Your task to perform on an android device: Show me the alarms in the clock app Image 0: 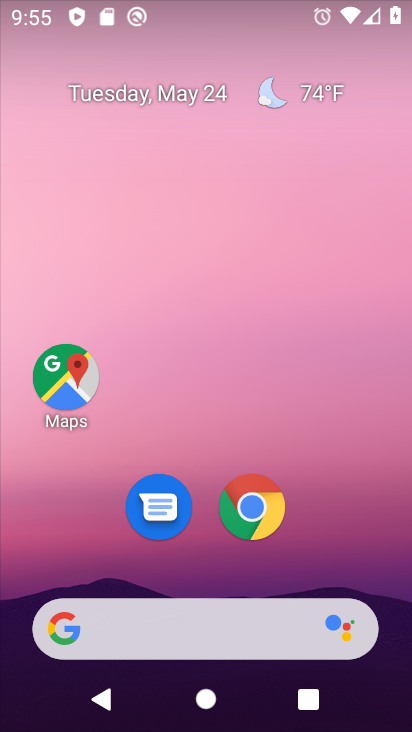
Step 0: drag from (215, 660) to (186, 154)
Your task to perform on an android device: Show me the alarms in the clock app Image 1: 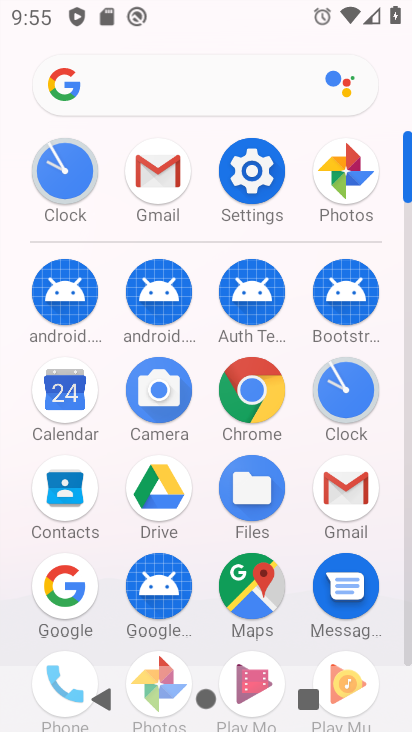
Step 1: click (343, 391)
Your task to perform on an android device: Show me the alarms in the clock app Image 2: 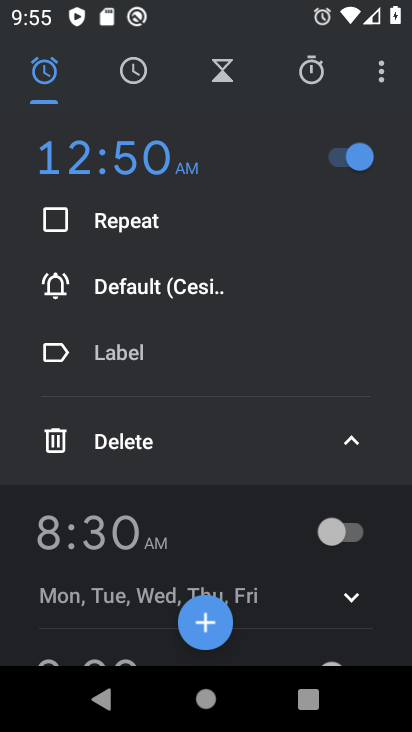
Step 2: task complete